Your task to perform on an android device: Go to display settings Image 0: 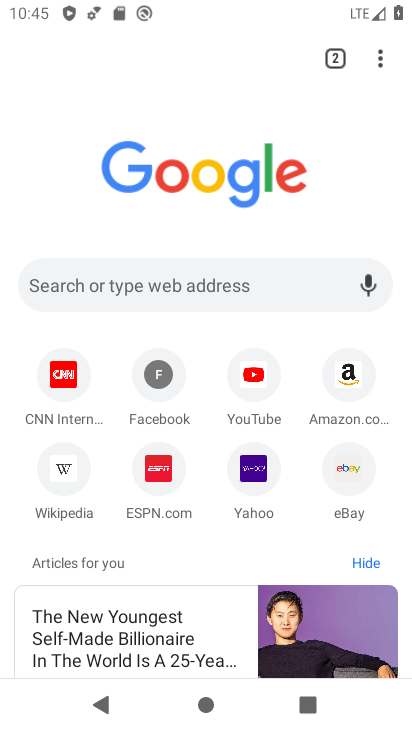
Step 0: press home button
Your task to perform on an android device: Go to display settings Image 1: 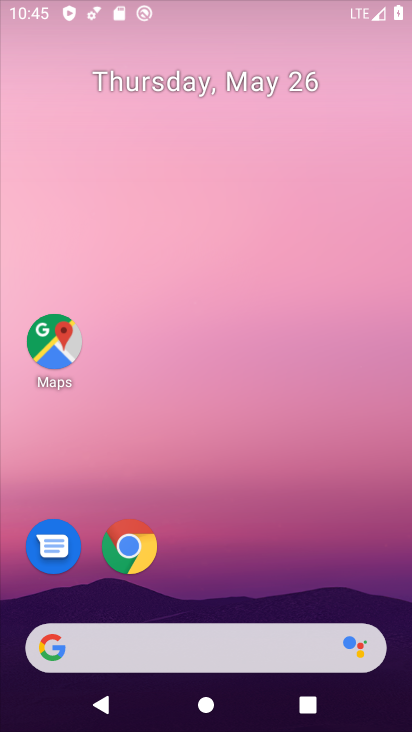
Step 1: drag from (248, 552) to (263, 80)
Your task to perform on an android device: Go to display settings Image 2: 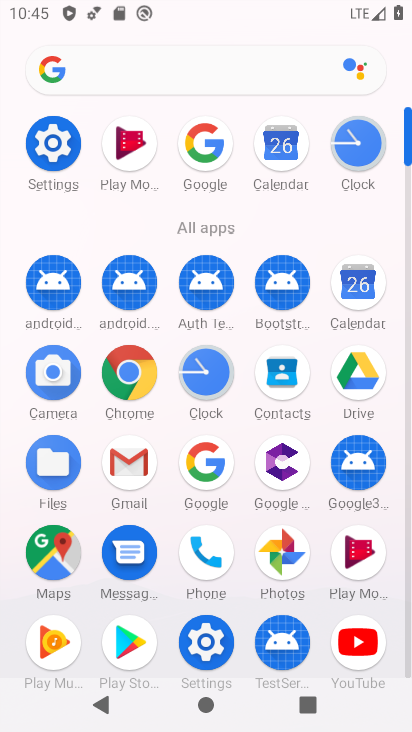
Step 2: click (51, 143)
Your task to perform on an android device: Go to display settings Image 3: 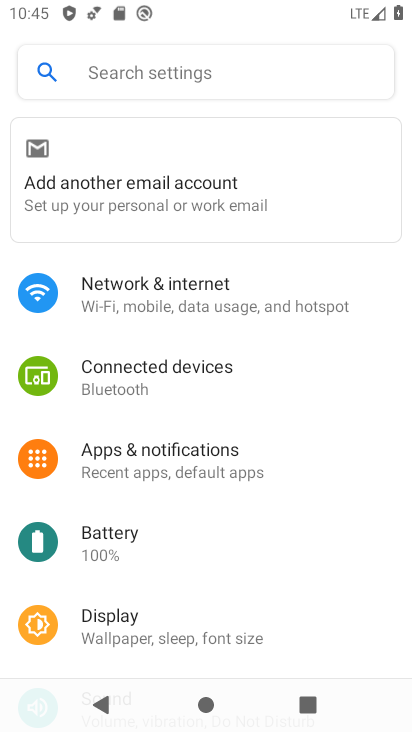
Step 3: click (100, 609)
Your task to perform on an android device: Go to display settings Image 4: 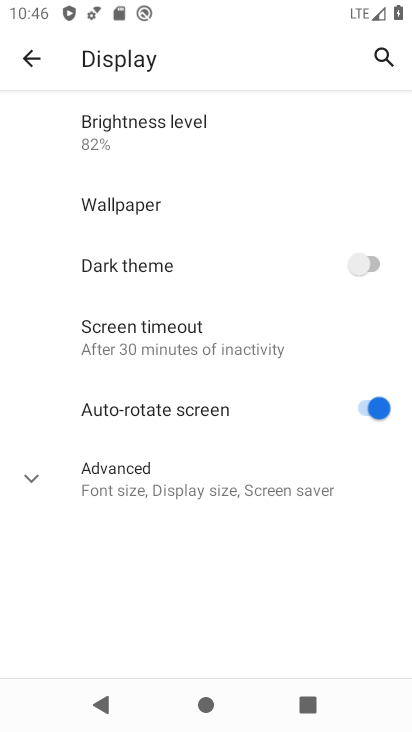
Step 4: task complete